Your task to perform on an android device: check android version Image 0: 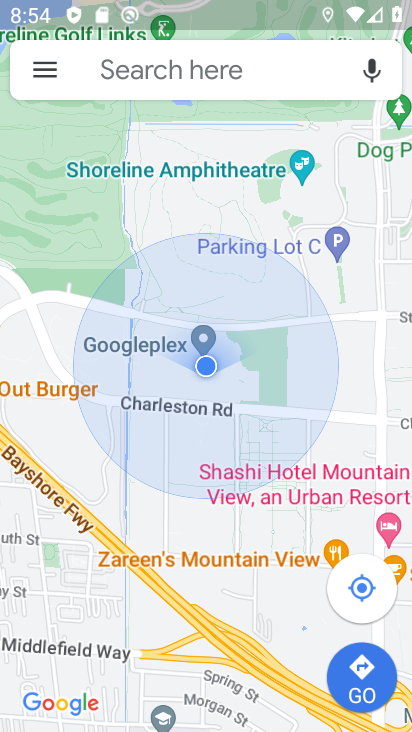
Step 0: press home button
Your task to perform on an android device: check android version Image 1: 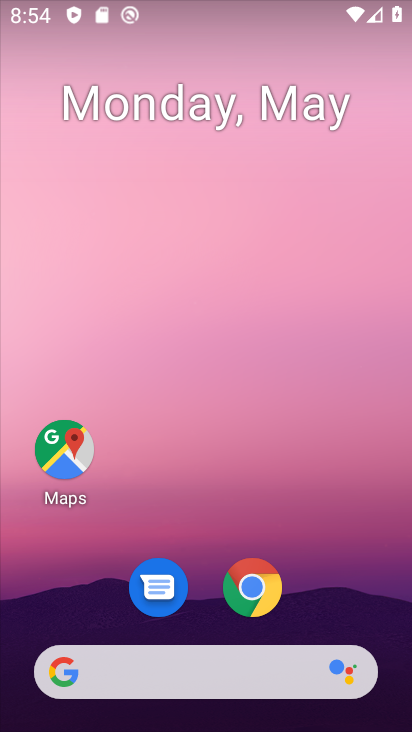
Step 1: drag from (217, 628) to (294, 35)
Your task to perform on an android device: check android version Image 2: 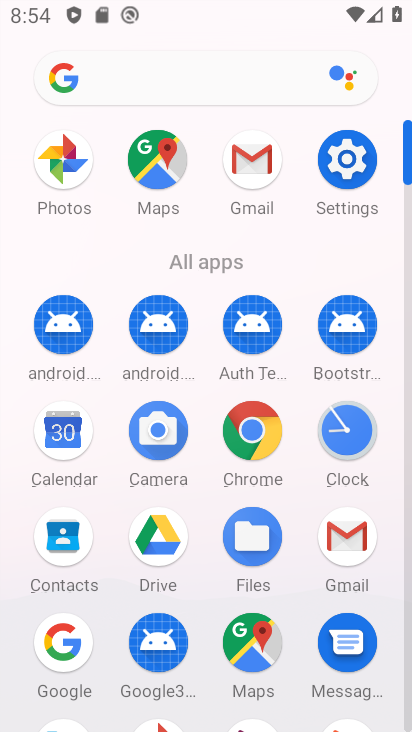
Step 2: click (348, 151)
Your task to perform on an android device: check android version Image 3: 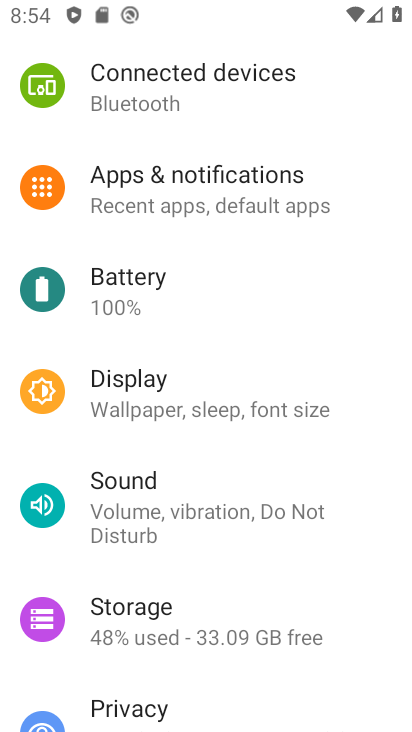
Step 3: drag from (233, 636) to (171, 5)
Your task to perform on an android device: check android version Image 4: 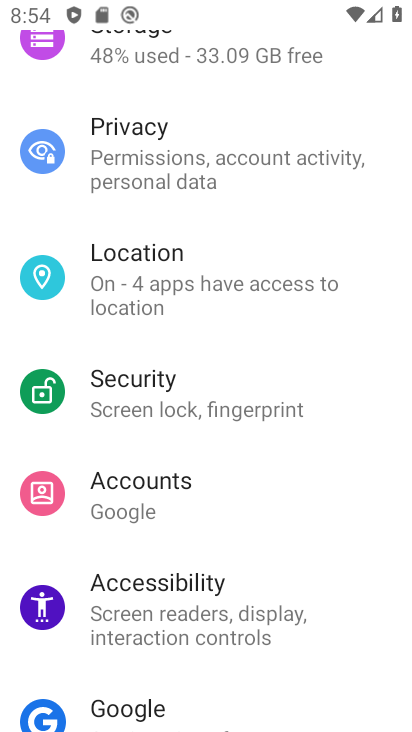
Step 4: drag from (133, 602) to (36, 46)
Your task to perform on an android device: check android version Image 5: 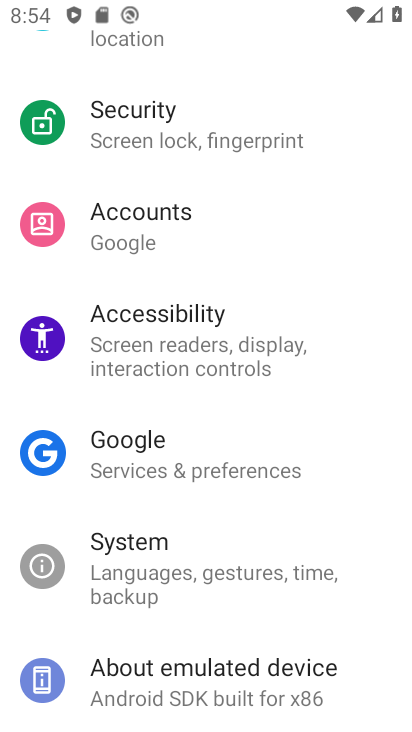
Step 5: click (175, 681)
Your task to perform on an android device: check android version Image 6: 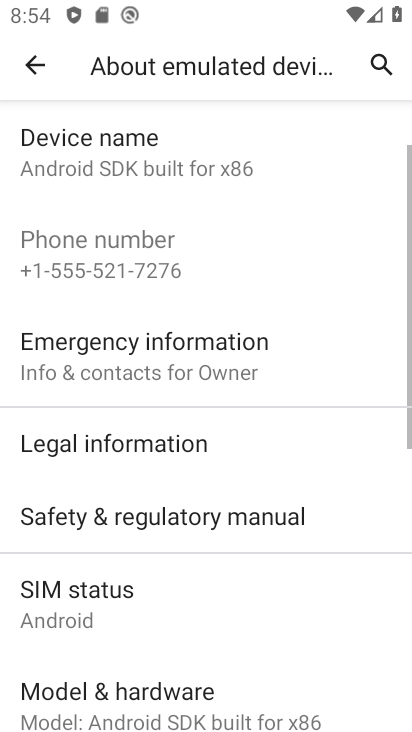
Step 6: drag from (155, 659) to (95, 61)
Your task to perform on an android device: check android version Image 7: 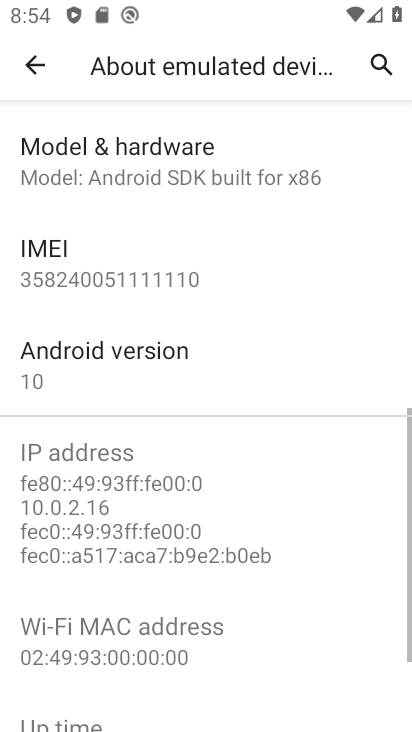
Step 7: click (126, 370)
Your task to perform on an android device: check android version Image 8: 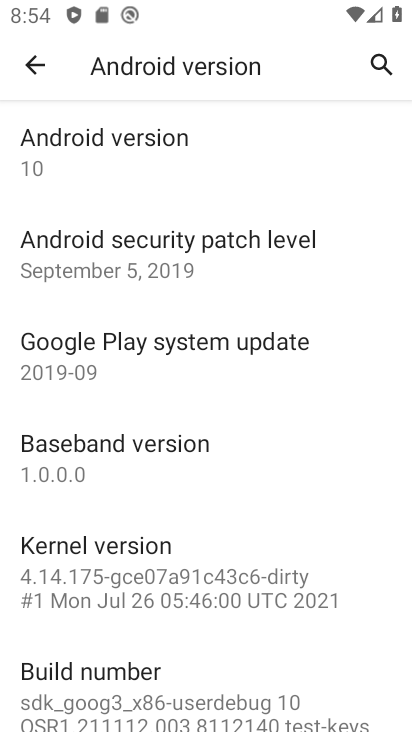
Step 8: task complete